Your task to perform on an android device: Open Android settings Image 0: 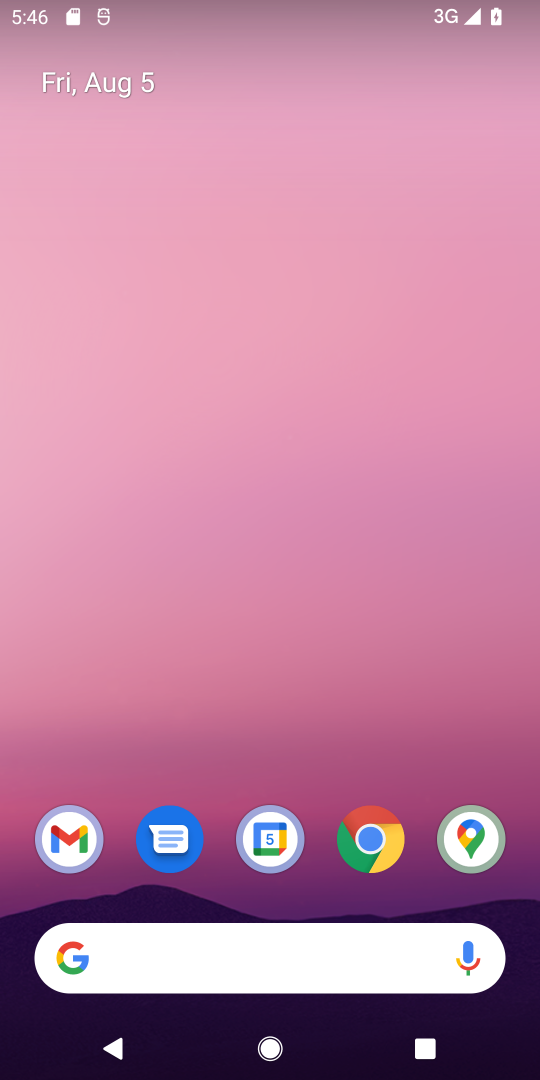
Step 0: drag from (251, 722) to (255, 72)
Your task to perform on an android device: Open Android settings Image 1: 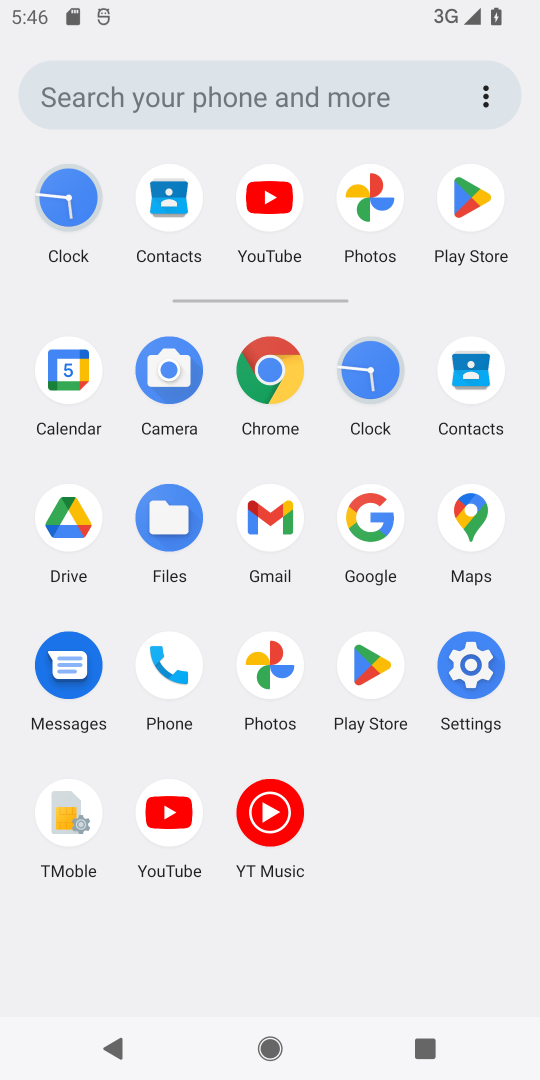
Step 1: click (443, 687)
Your task to perform on an android device: Open Android settings Image 2: 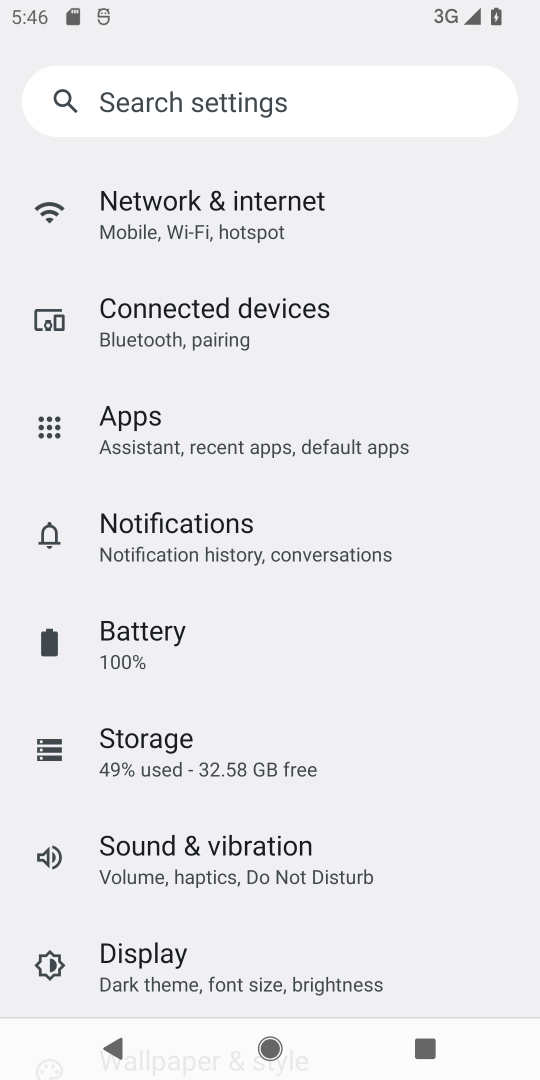
Step 2: task complete